Your task to perform on an android device: check the backup settings in the google photos Image 0: 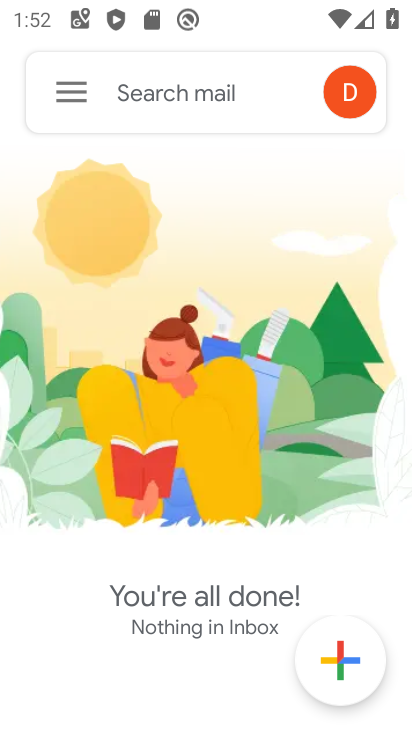
Step 0: press home button
Your task to perform on an android device: check the backup settings in the google photos Image 1: 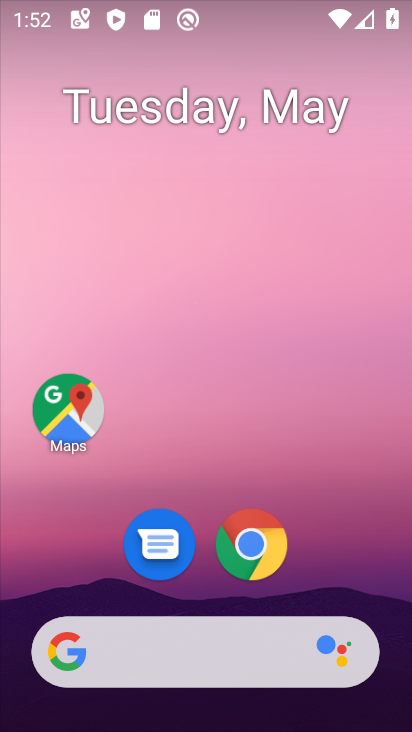
Step 1: drag from (344, 574) to (326, 155)
Your task to perform on an android device: check the backup settings in the google photos Image 2: 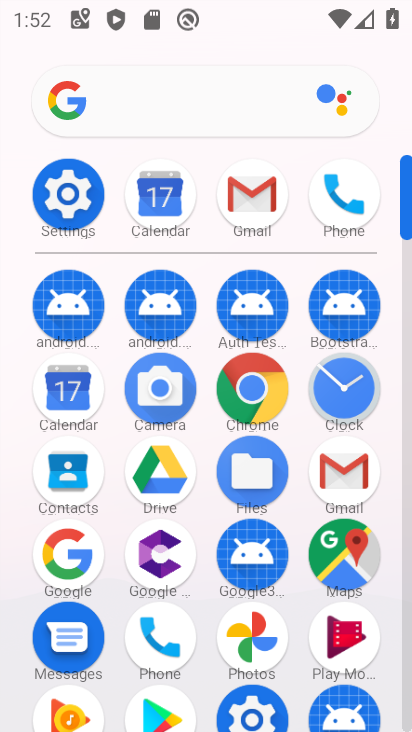
Step 2: click (239, 631)
Your task to perform on an android device: check the backup settings in the google photos Image 3: 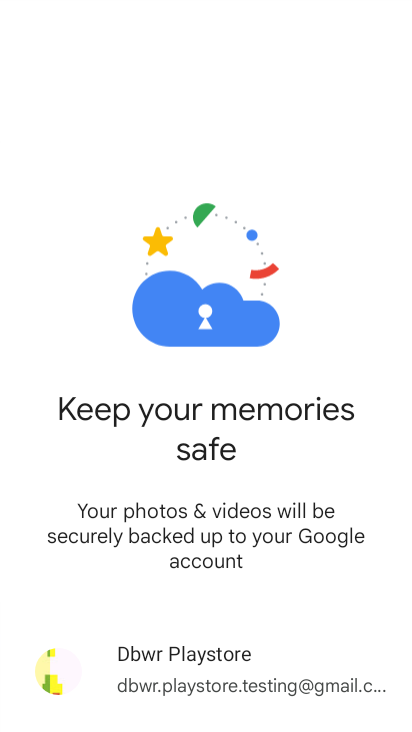
Step 3: click (221, 669)
Your task to perform on an android device: check the backup settings in the google photos Image 4: 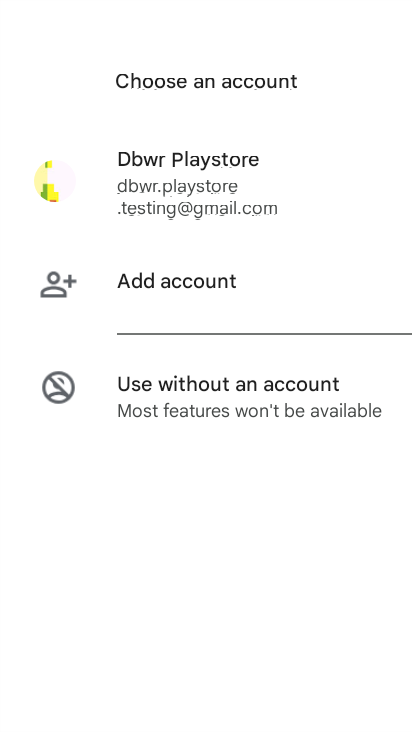
Step 4: click (194, 167)
Your task to perform on an android device: check the backup settings in the google photos Image 5: 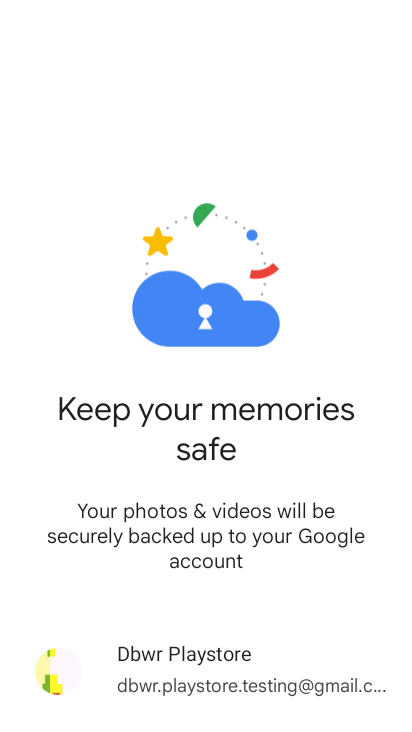
Step 5: drag from (186, 200) to (346, 469)
Your task to perform on an android device: check the backup settings in the google photos Image 6: 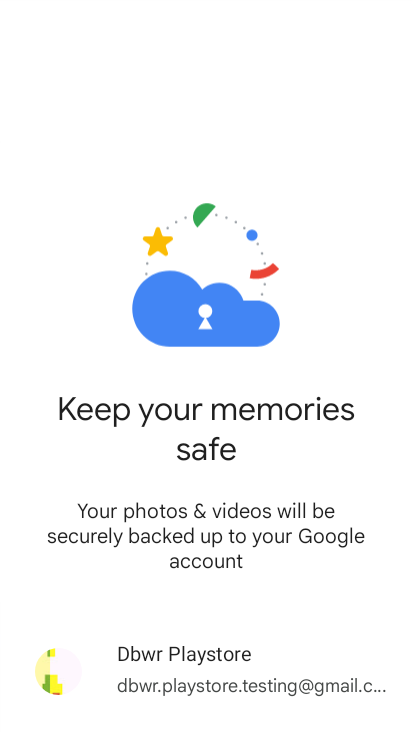
Step 6: press back button
Your task to perform on an android device: check the backup settings in the google photos Image 7: 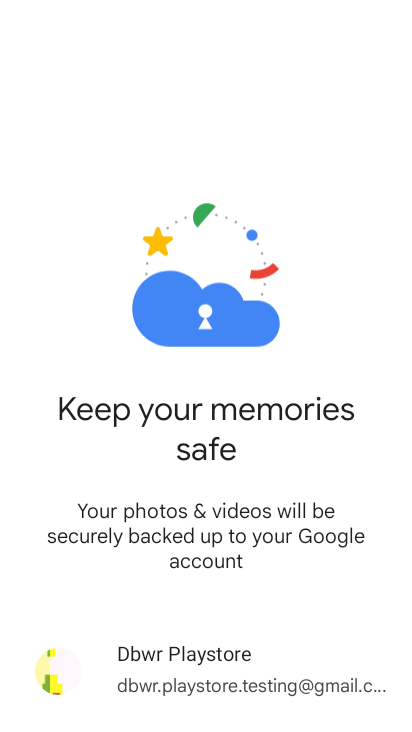
Step 7: press back button
Your task to perform on an android device: check the backup settings in the google photos Image 8: 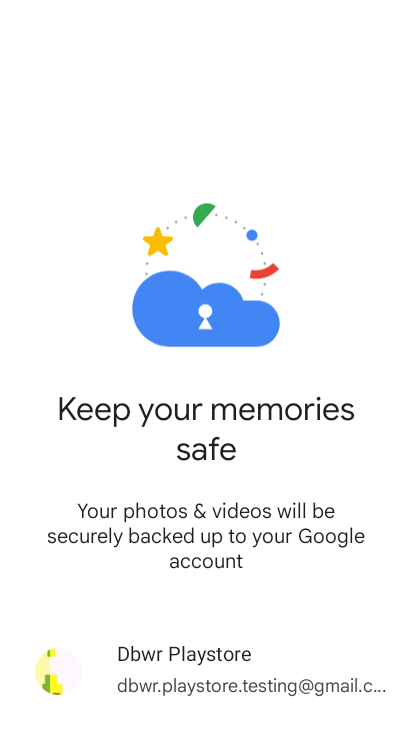
Step 8: press back button
Your task to perform on an android device: check the backup settings in the google photos Image 9: 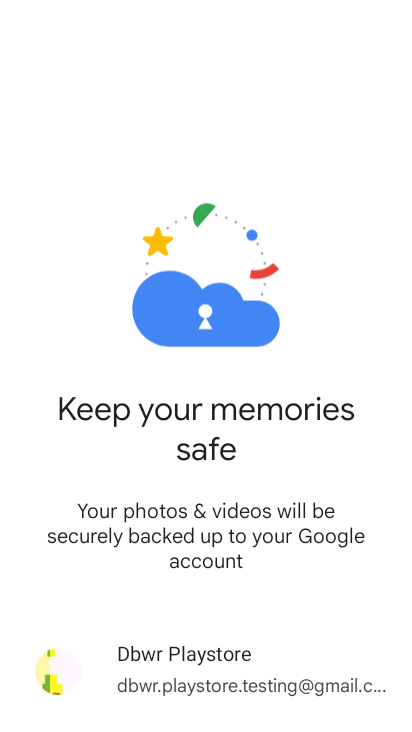
Step 9: press back button
Your task to perform on an android device: check the backup settings in the google photos Image 10: 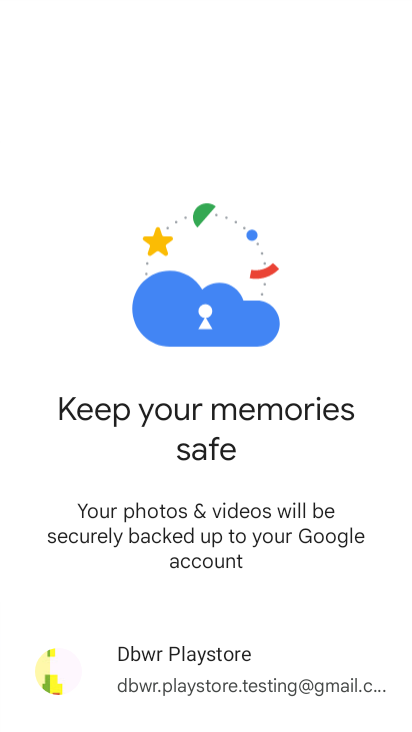
Step 10: press back button
Your task to perform on an android device: check the backup settings in the google photos Image 11: 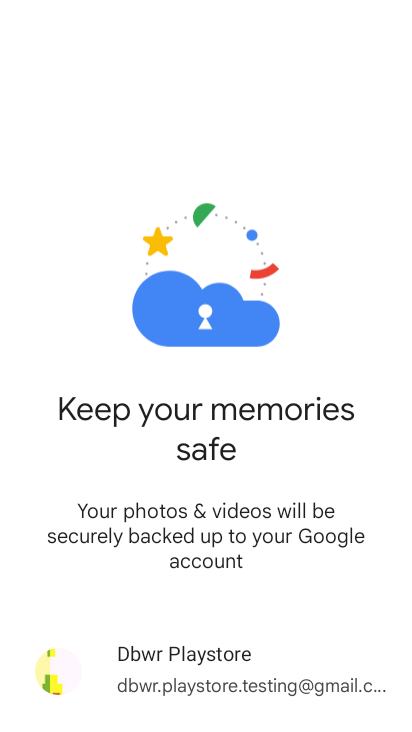
Step 11: click (227, 687)
Your task to perform on an android device: check the backup settings in the google photos Image 12: 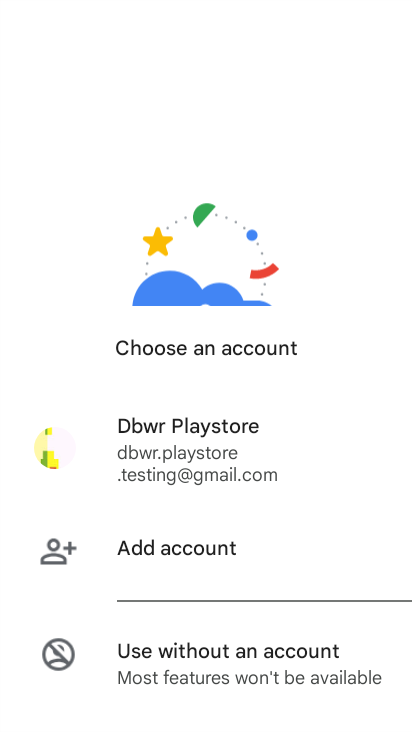
Step 12: click (227, 687)
Your task to perform on an android device: check the backup settings in the google photos Image 13: 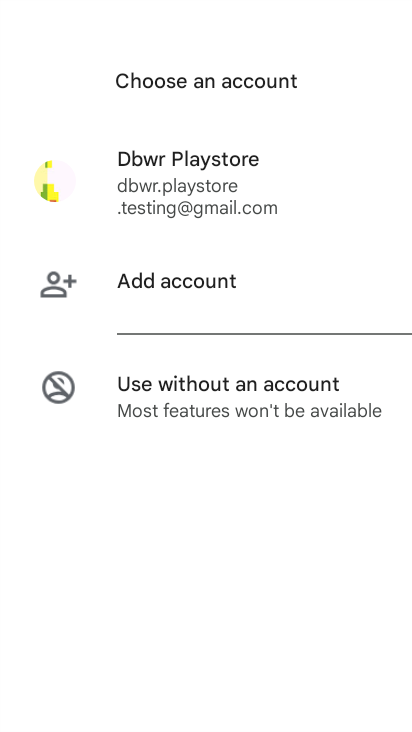
Step 13: click (198, 201)
Your task to perform on an android device: check the backup settings in the google photos Image 14: 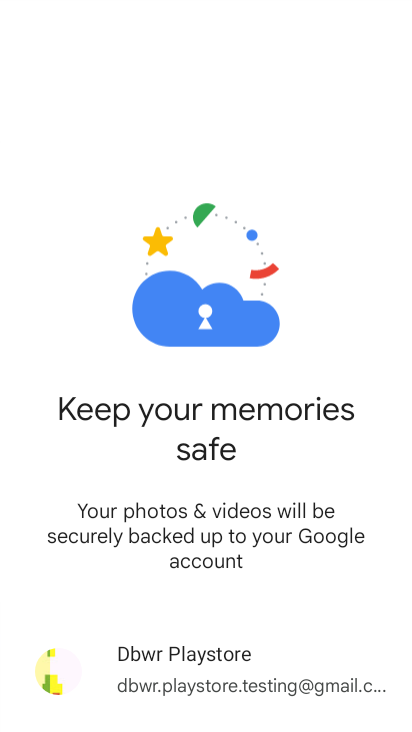
Step 14: task complete